Your task to perform on an android device: Open Wikipedia Image 0: 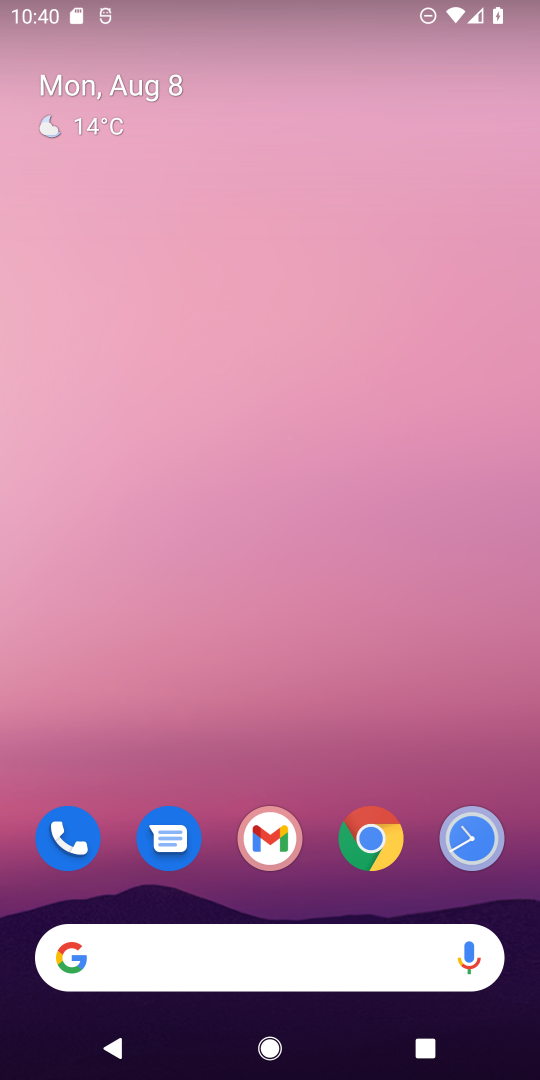
Step 0: press home button
Your task to perform on an android device: Open Wikipedia Image 1: 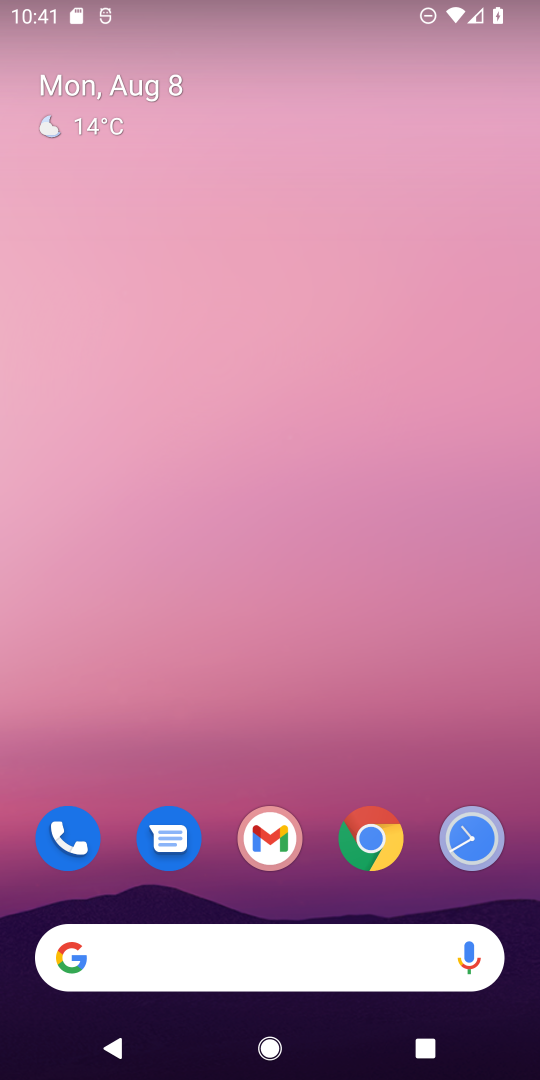
Step 1: click (65, 958)
Your task to perform on an android device: Open Wikipedia Image 2: 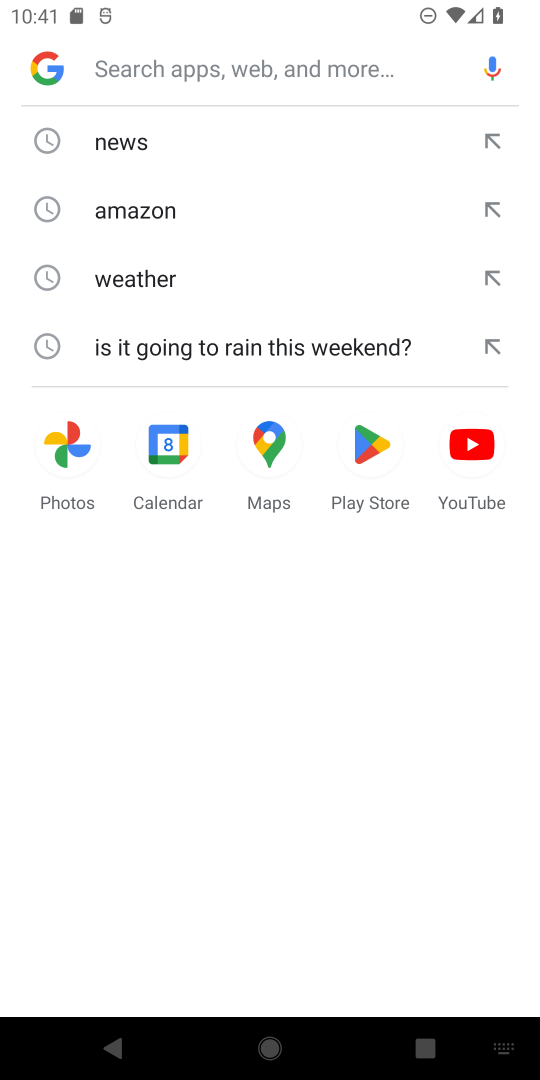
Step 2: type " Wikipedia"
Your task to perform on an android device: Open Wikipedia Image 3: 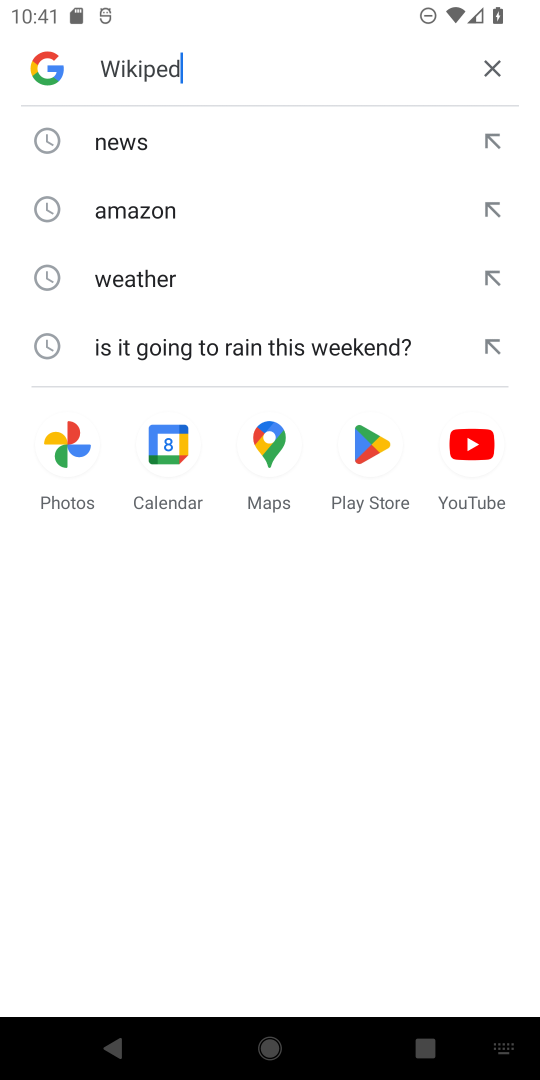
Step 3: press enter
Your task to perform on an android device: Open Wikipedia Image 4: 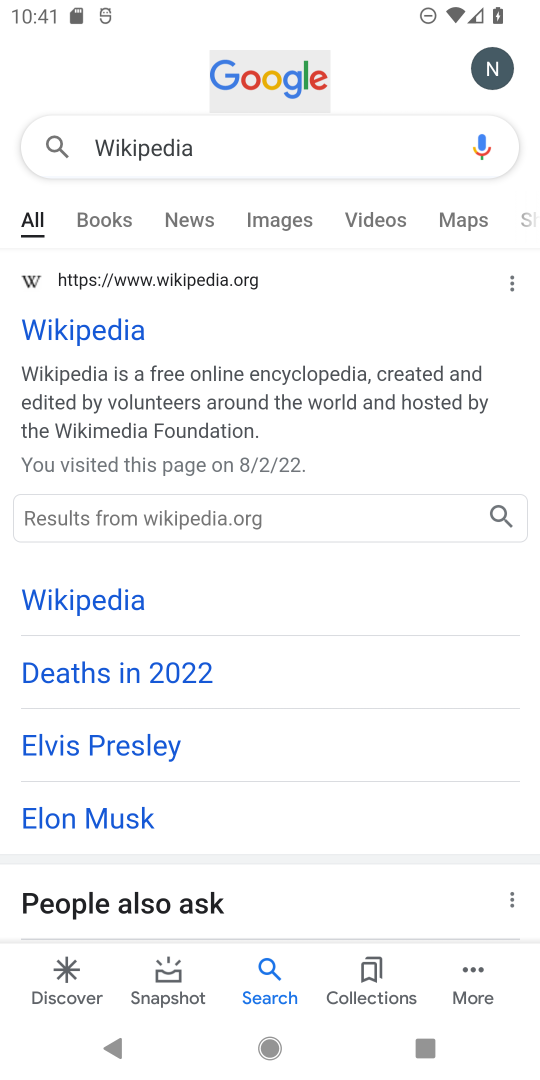
Step 4: click (67, 347)
Your task to perform on an android device: Open Wikipedia Image 5: 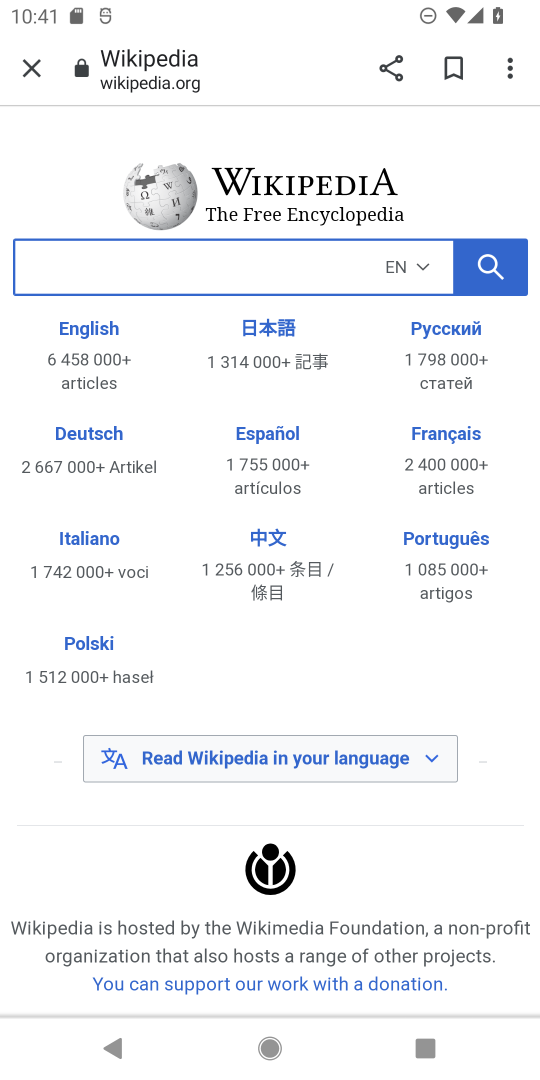
Step 5: task complete